Your task to perform on an android device: set an alarm Image 0: 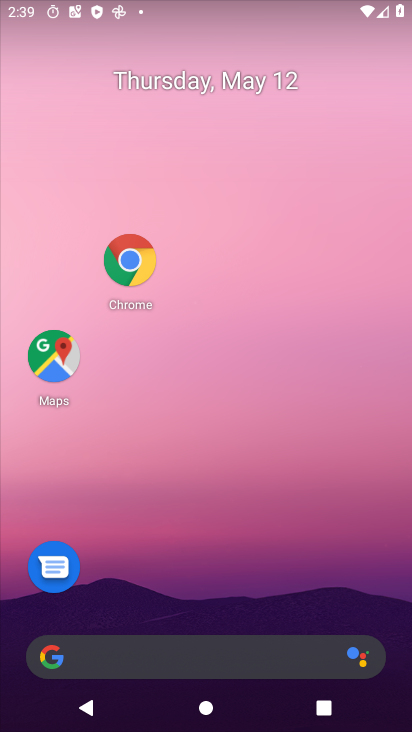
Step 0: drag from (202, 635) to (179, 265)
Your task to perform on an android device: set an alarm Image 1: 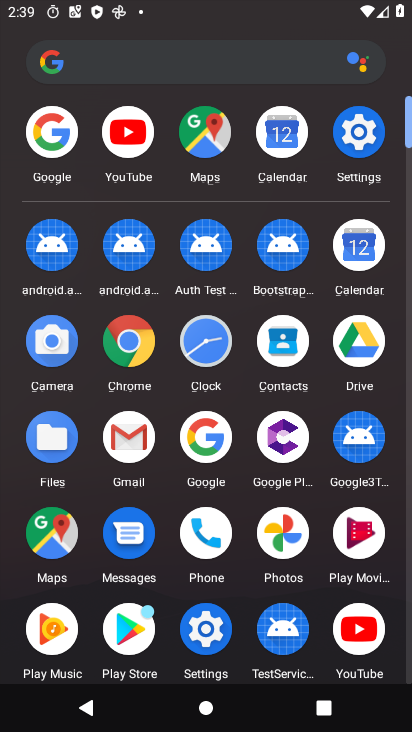
Step 1: click (197, 349)
Your task to perform on an android device: set an alarm Image 2: 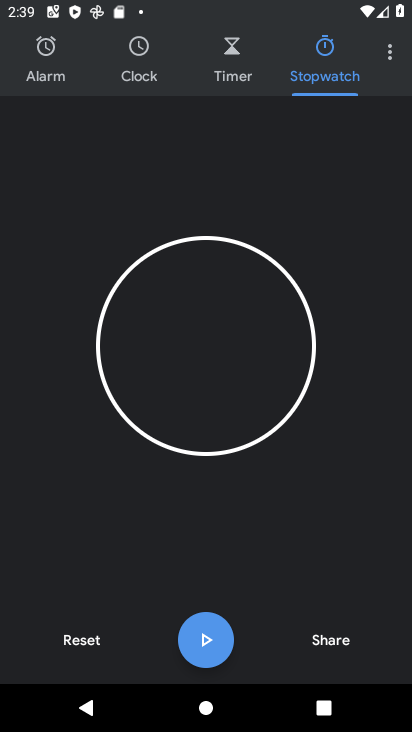
Step 2: click (53, 64)
Your task to perform on an android device: set an alarm Image 3: 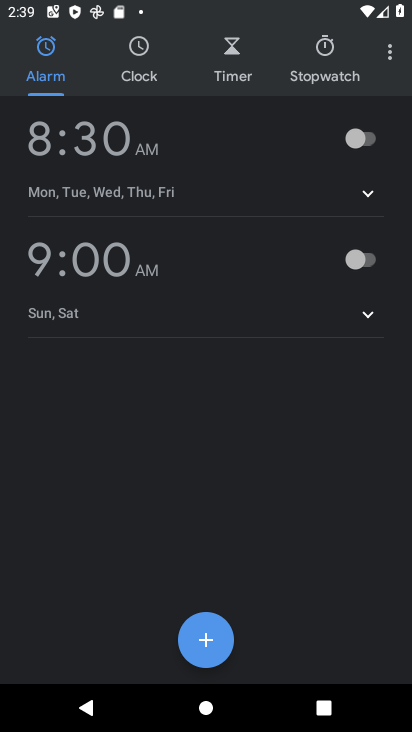
Step 3: click (370, 138)
Your task to perform on an android device: set an alarm Image 4: 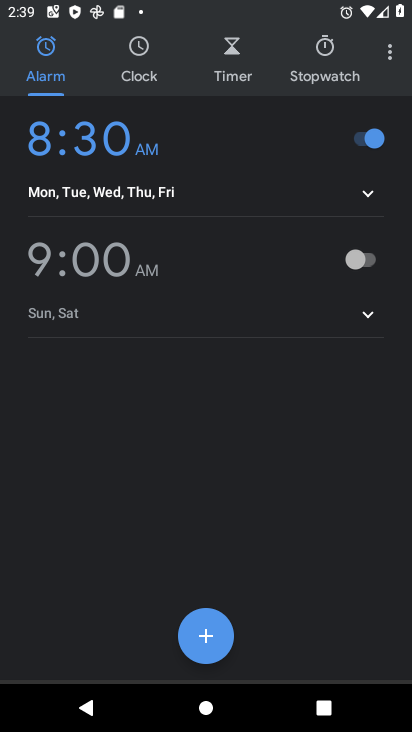
Step 4: task complete